Your task to perform on an android device: Open notification settings Image 0: 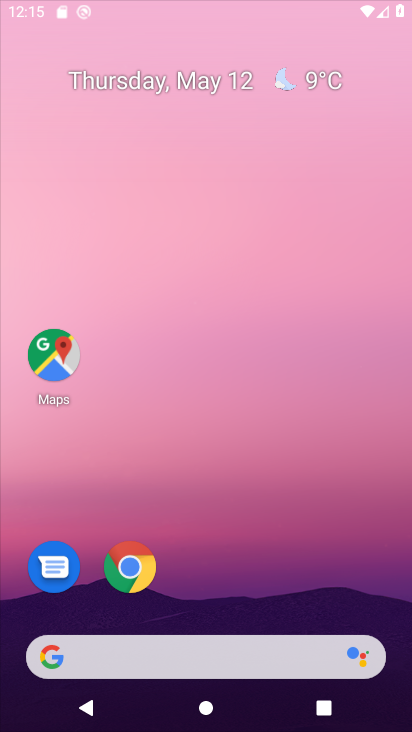
Step 0: drag from (276, 257) to (276, 102)
Your task to perform on an android device: Open notification settings Image 1: 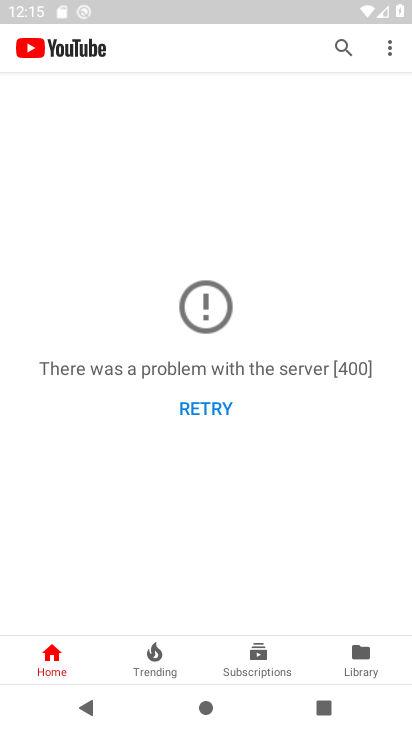
Step 1: press home button
Your task to perform on an android device: Open notification settings Image 2: 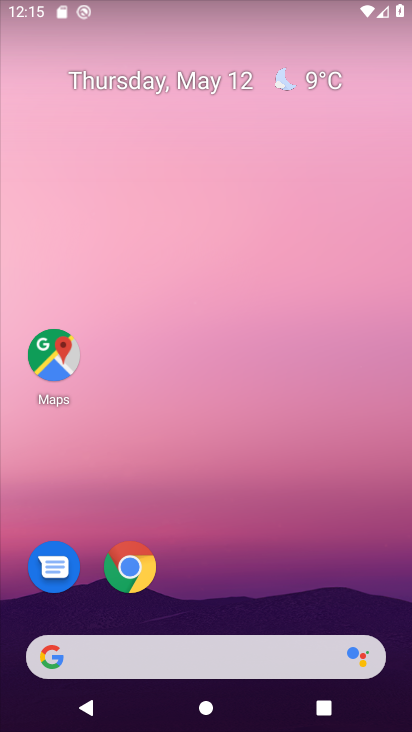
Step 2: drag from (258, 558) to (273, 135)
Your task to perform on an android device: Open notification settings Image 3: 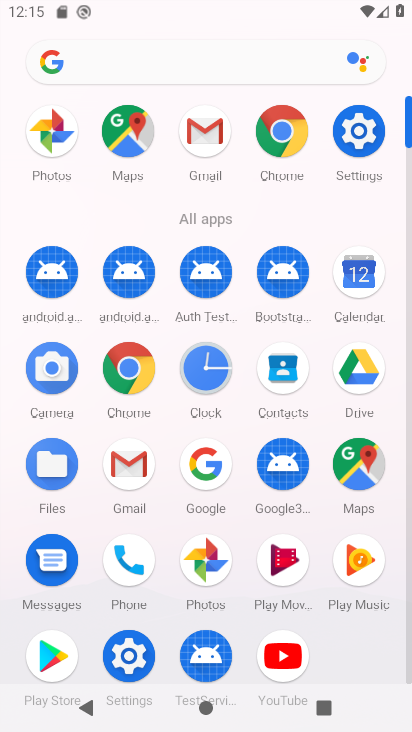
Step 3: click (351, 150)
Your task to perform on an android device: Open notification settings Image 4: 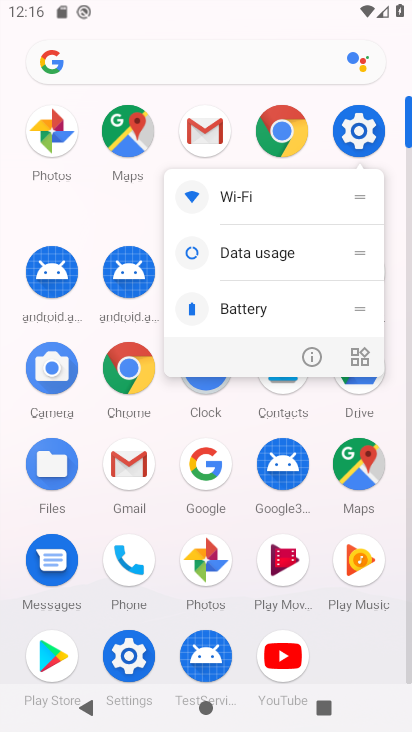
Step 4: click (359, 135)
Your task to perform on an android device: Open notification settings Image 5: 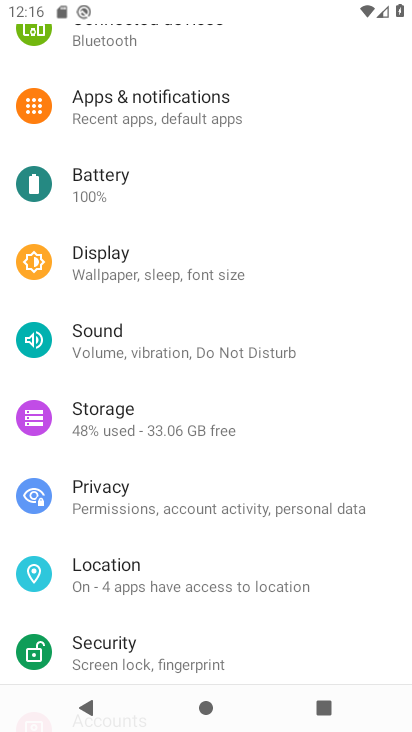
Step 5: click (202, 114)
Your task to perform on an android device: Open notification settings Image 6: 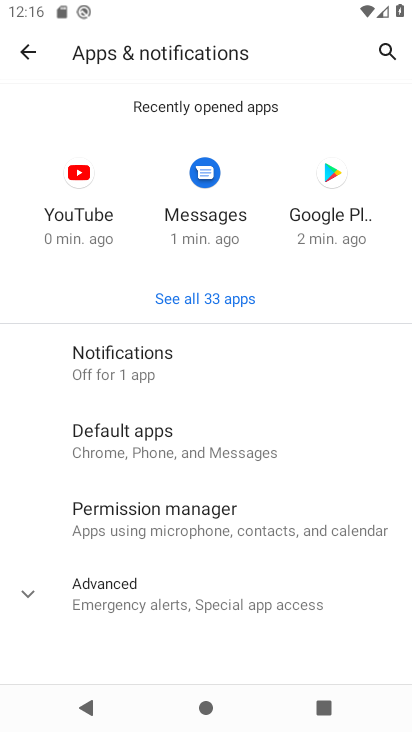
Step 6: click (158, 368)
Your task to perform on an android device: Open notification settings Image 7: 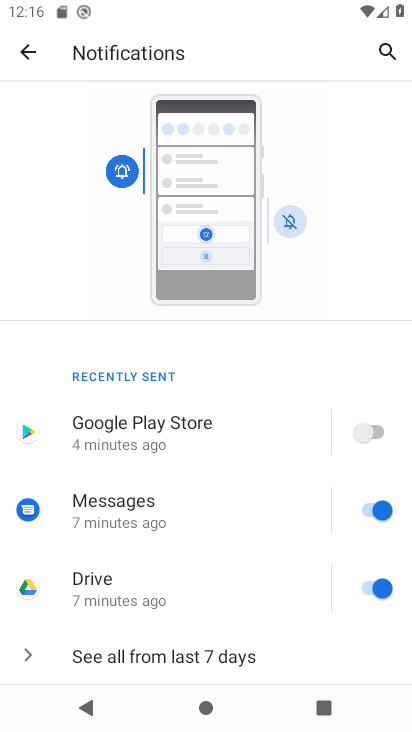
Step 7: task complete